Your task to perform on an android device: What is the news today? Image 0: 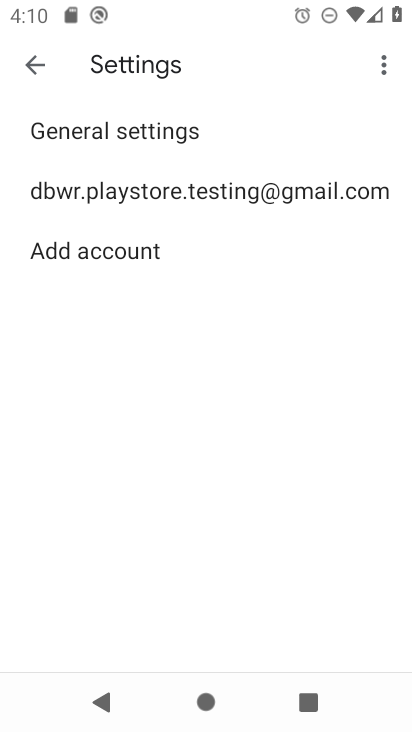
Step 0: press home button
Your task to perform on an android device: What is the news today? Image 1: 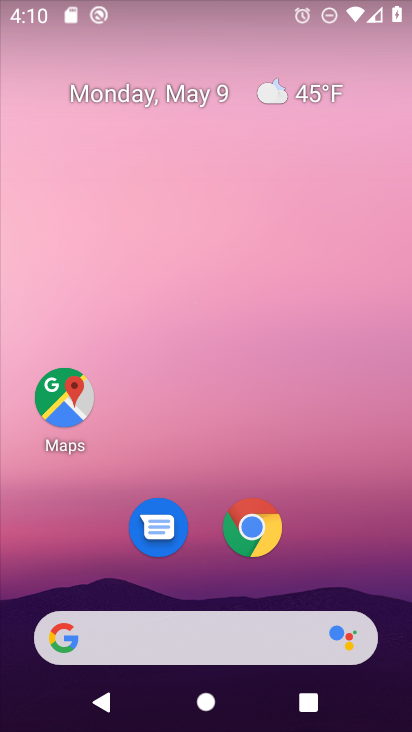
Step 1: drag from (339, 557) to (306, 235)
Your task to perform on an android device: What is the news today? Image 2: 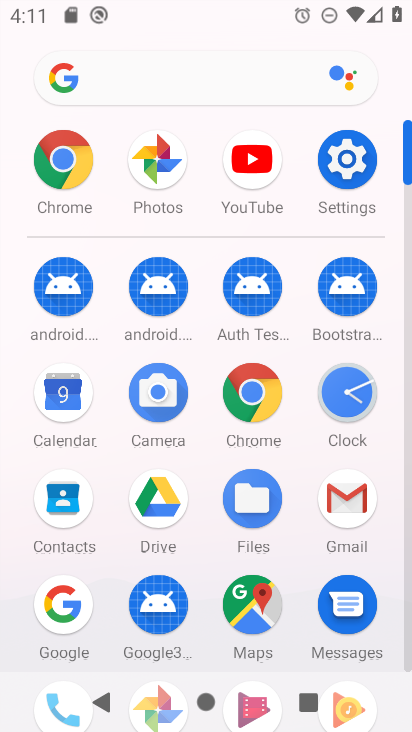
Step 2: click (62, 168)
Your task to perform on an android device: What is the news today? Image 3: 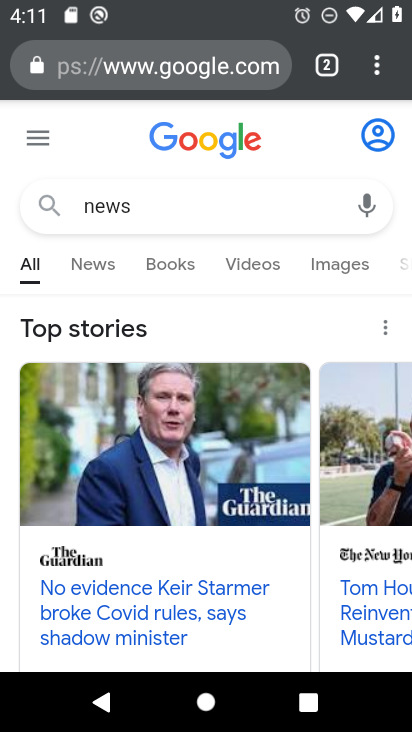
Step 3: task complete